Your task to perform on an android device: Go to Amazon Image 0: 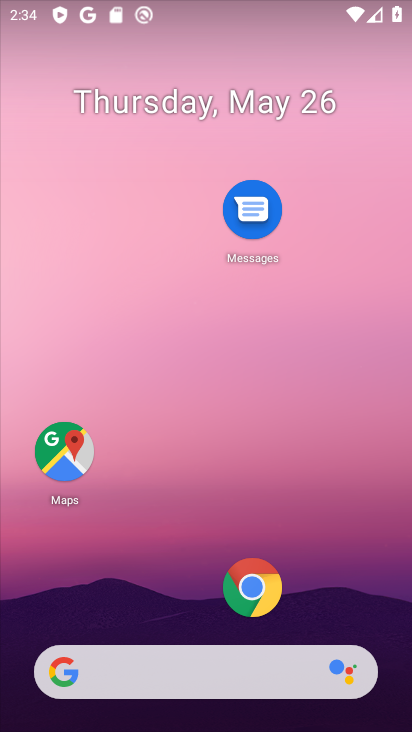
Step 0: click (267, 593)
Your task to perform on an android device: Go to Amazon Image 1: 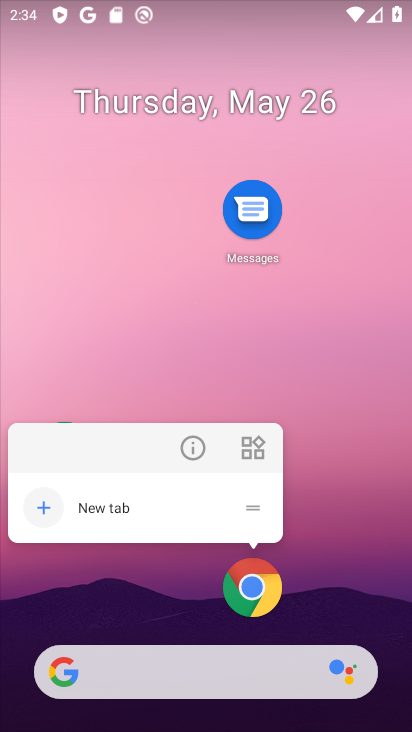
Step 1: click (271, 593)
Your task to perform on an android device: Go to Amazon Image 2: 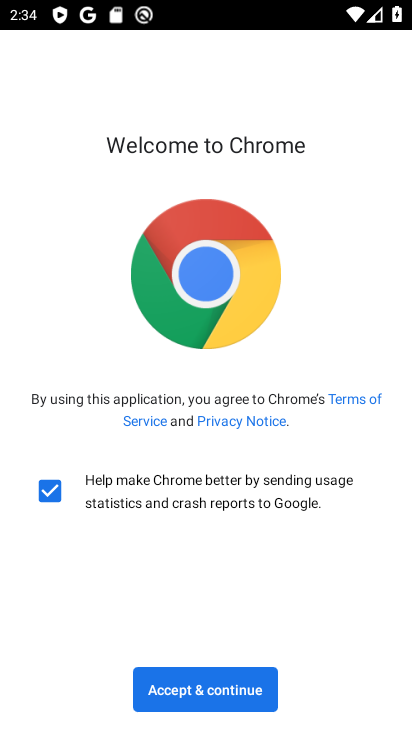
Step 2: click (207, 706)
Your task to perform on an android device: Go to Amazon Image 3: 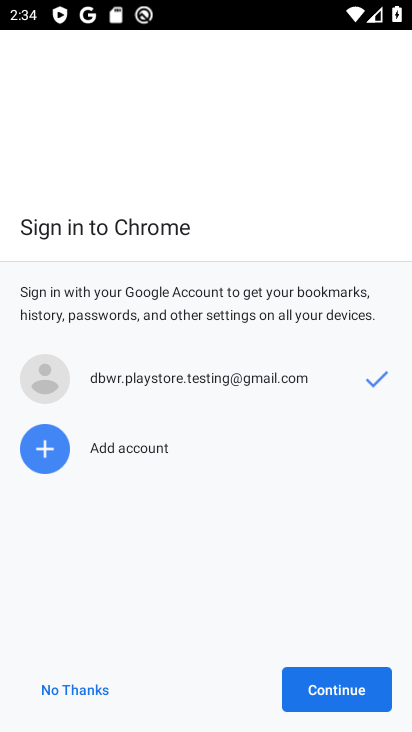
Step 3: click (309, 673)
Your task to perform on an android device: Go to Amazon Image 4: 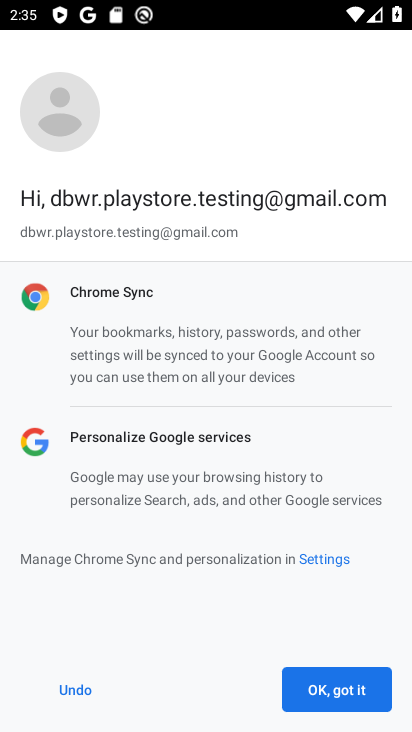
Step 4: click (309, 673)
Your task to perform on an android device: Go to Amazon Image 5: 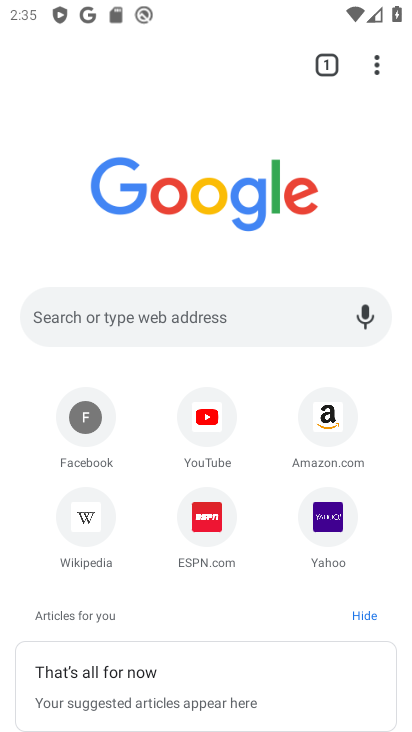
Step 5: click (344, 422)
Your task to perform on an android device: Go to Amazon Image 6: 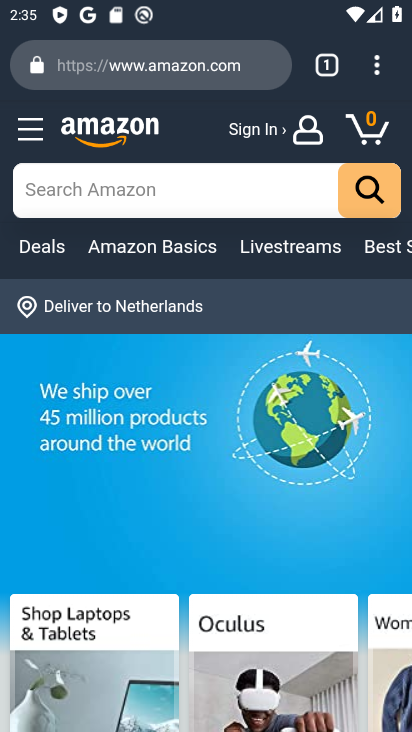
Step 6: task complete